Your task to perform on an android device: toggle airplane mode Image 0: 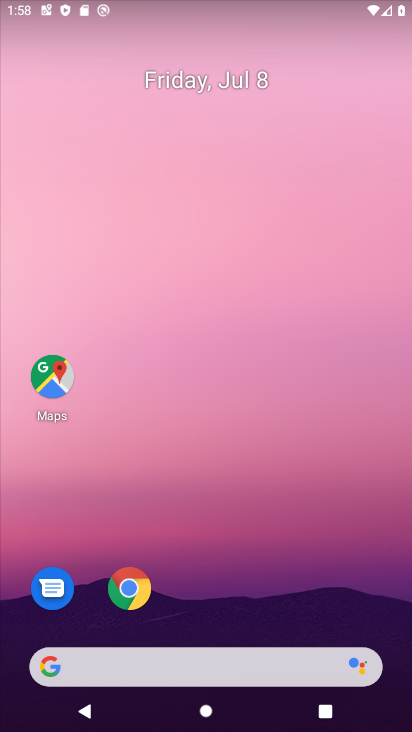
Step 0: press home button
Your task to perform on an android device: toggle airplane mode Image 1: 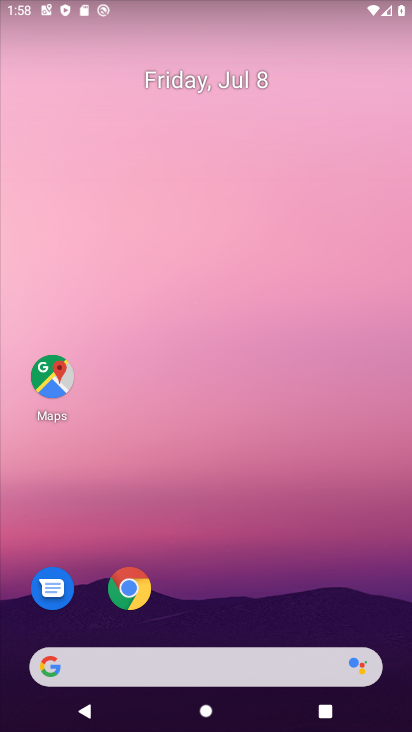
Step 1: drag from (207, 14) to (214, 475)
Your task to perform on an android device: toggle airplane mode Image 2: 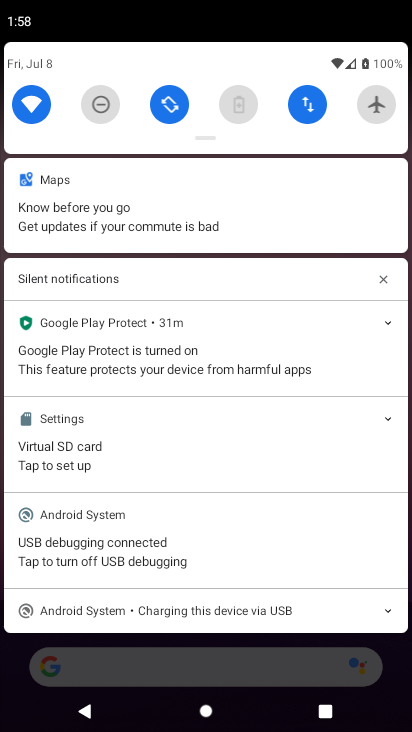
Step 2: click (373, 106)
Your task to perform on an android device: toggle airplane mode Image 3: 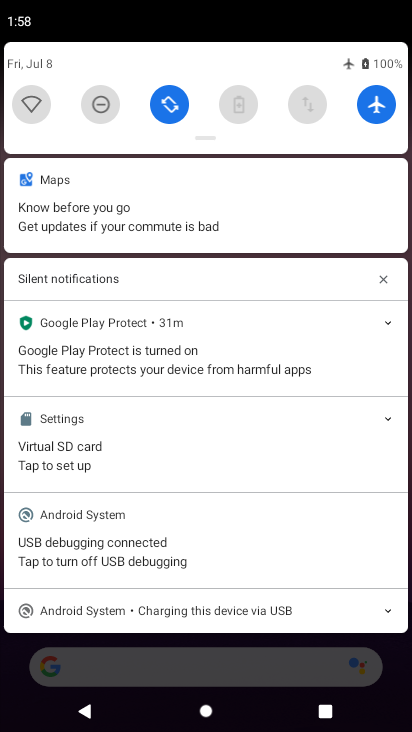
Step 3: task complete